Your task to perform on an android device: Open location settings Image 0: 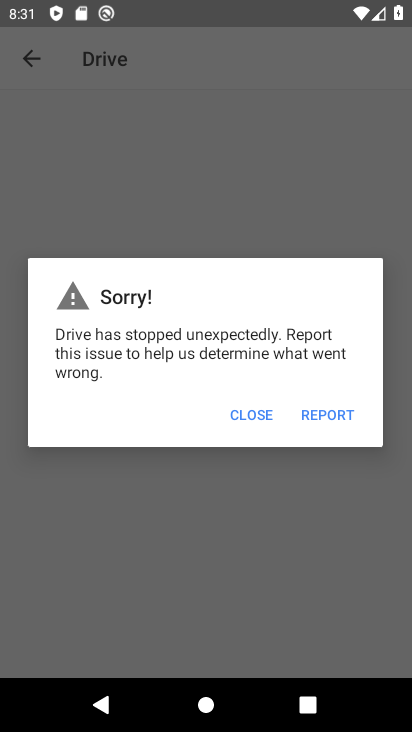
Step 0: press home button
Your task to perform on an android device: Open location settings Image 1: 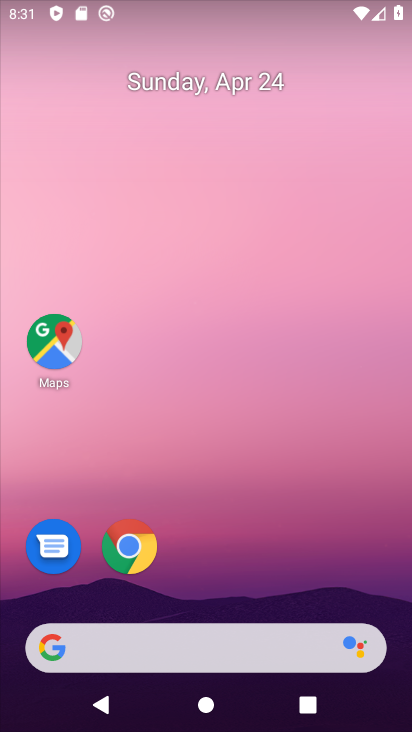
Step 1: drag from (278, 609) to (306, 74)
Your task to perform on an android device: Open location settings Image 2: 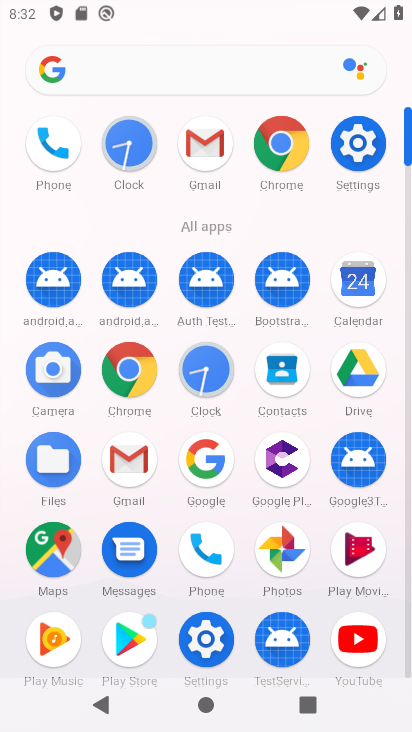
Step 2: click (379, 144)
Your task to perform on an android device: Open location settings Image 3: 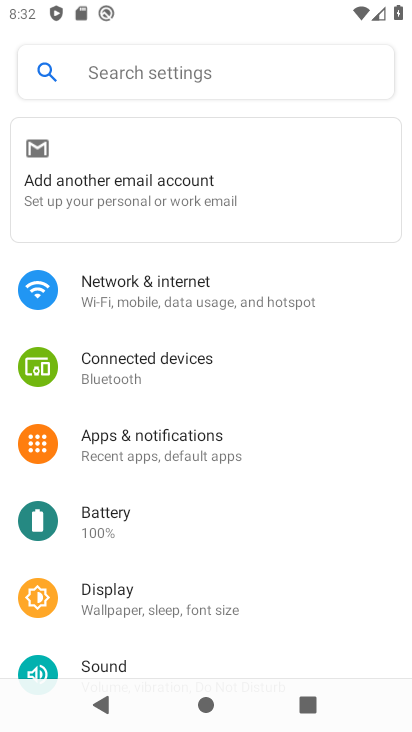
Step 3: drag from (172, 474) to (226, 223)
Your task to perform on an android device: Open location settings Image 4: 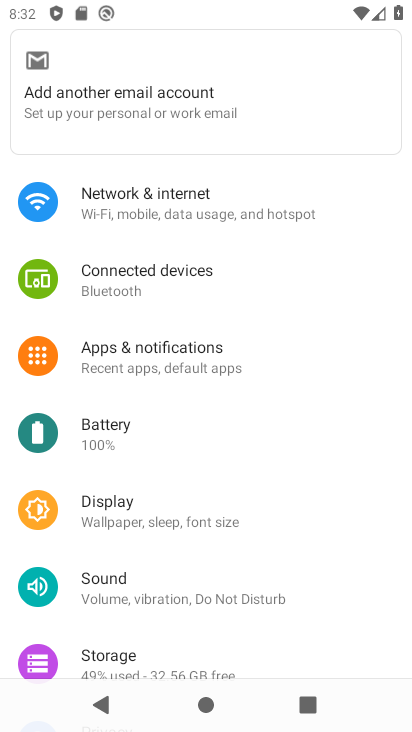
Step 4: drag from (215, 561) to (248, 209)
Your task to perform on an android device: Open location settings Image 5: 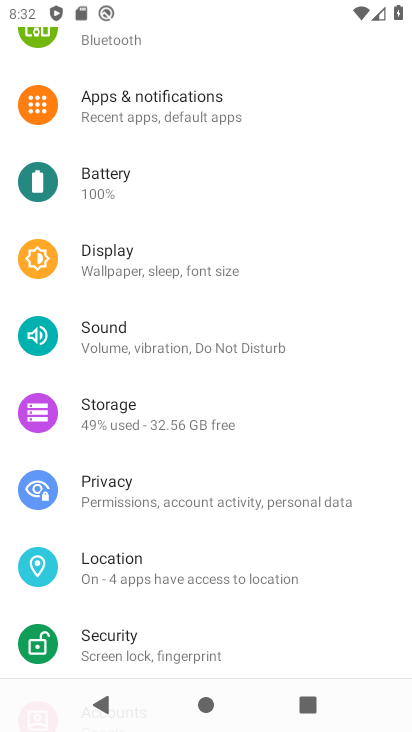
Step 5: click (166, 560)
Your task to perform on an android device: Open location settings Image 6: 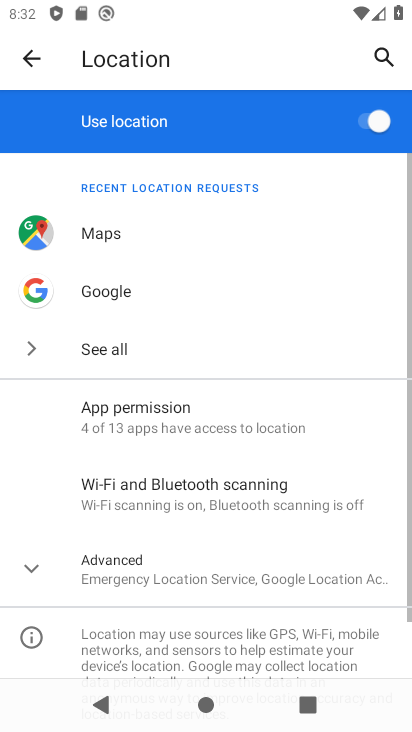
Step 6: task complete